Your task to perform on an android device: What's on my calendar today? Image 0: 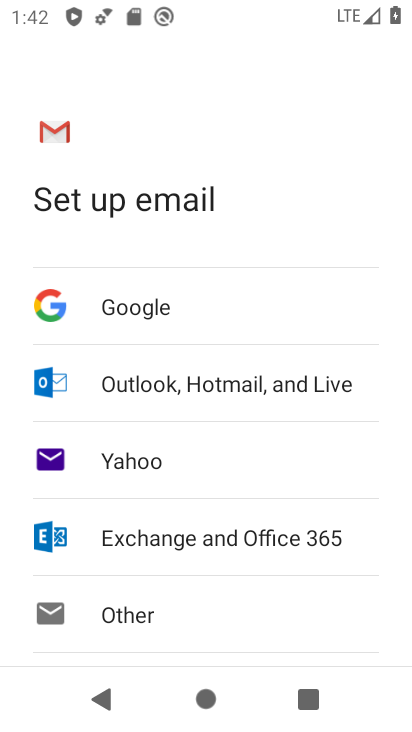
Step 0: press home button
Your task to perform on an android device: What's on my calendar today? Image 1: 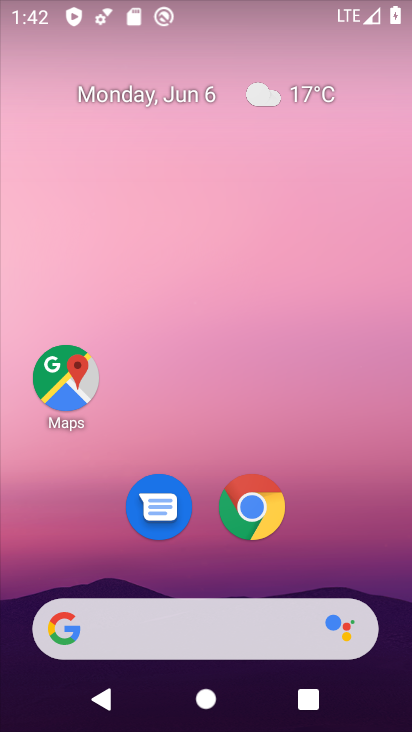
Step 1: drag from (379, 570) to (253, 189)
Your task to perform on an android device: What's on my calendar today? Image 2: 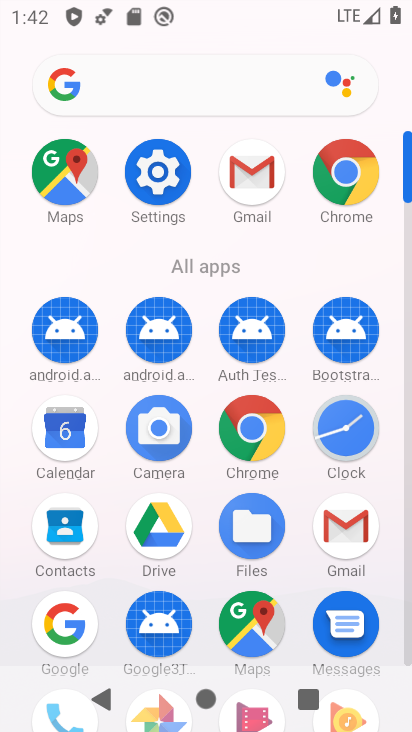
Step 2: click (77, 432)
Your task to perform on an android device: What's on my calendar today? Image 3: 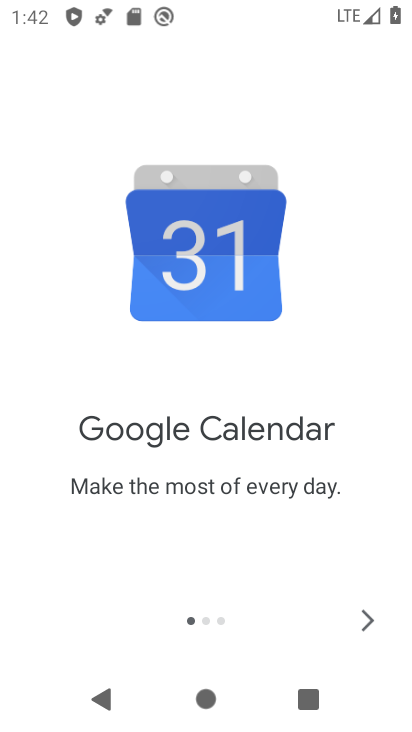
Step 3: click (376, 628)
Your task to perform on an android device: What's on my calendar today? Image 4: 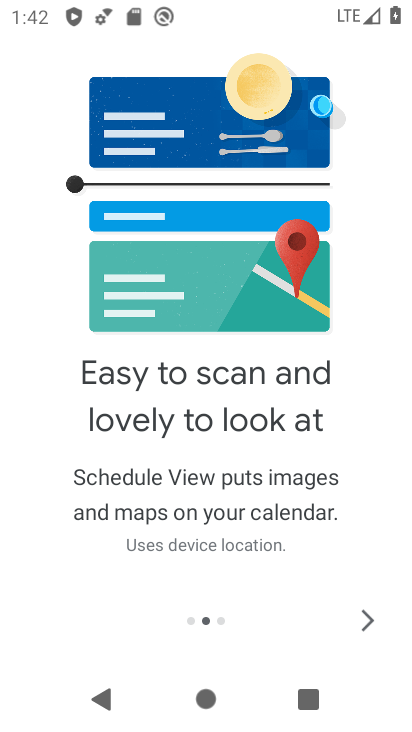
Step 4: click (376, 628)
Your task to perform on an android device: What's on my calendar today? Image 5: 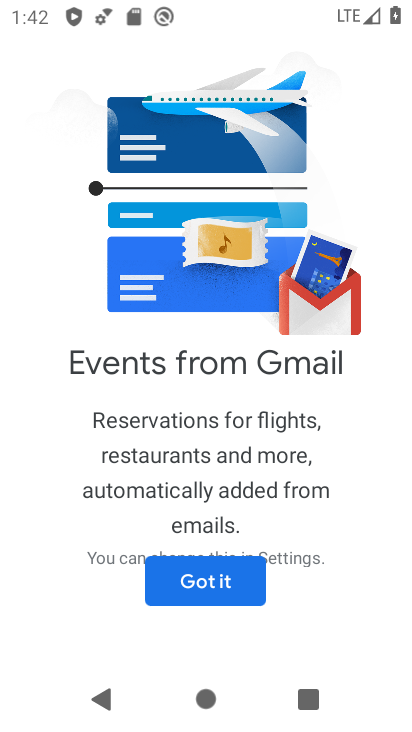
Step 5: click (226, 603)
Your task to perform on an android device: What's on my calendar today? Image 6: 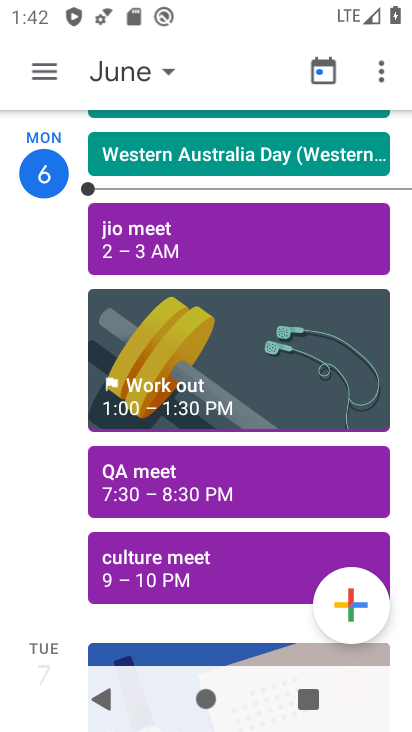
Step 6: task complete